Your task to perform on an android device: Open the map Image 0: 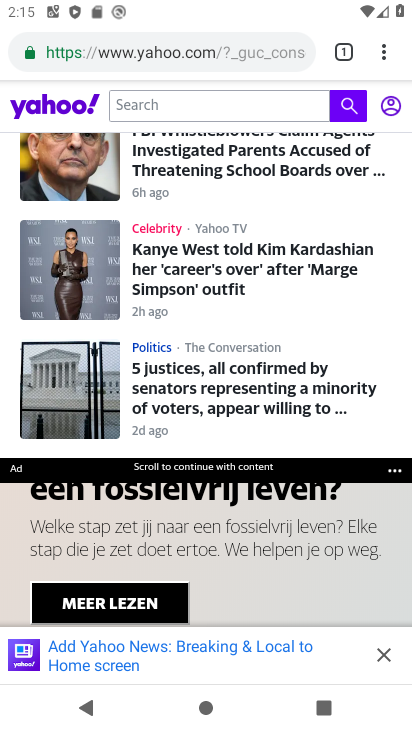
Step 0: press home button
Your task to perform on an android device: Open the map Image 1: 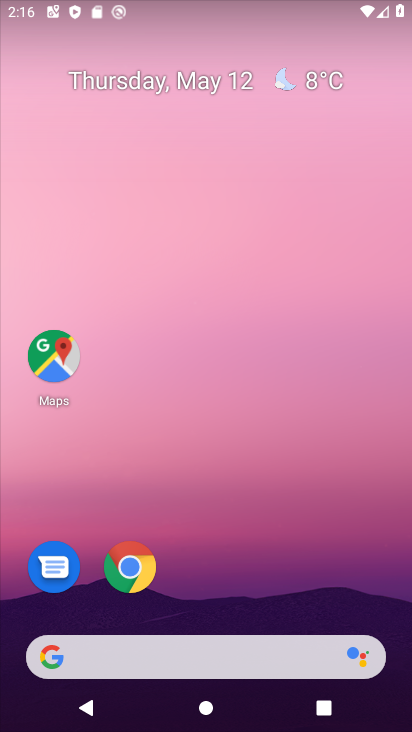
Step 1: click (53, 351)
Your task to perform on an android device: Open the map Image 2: 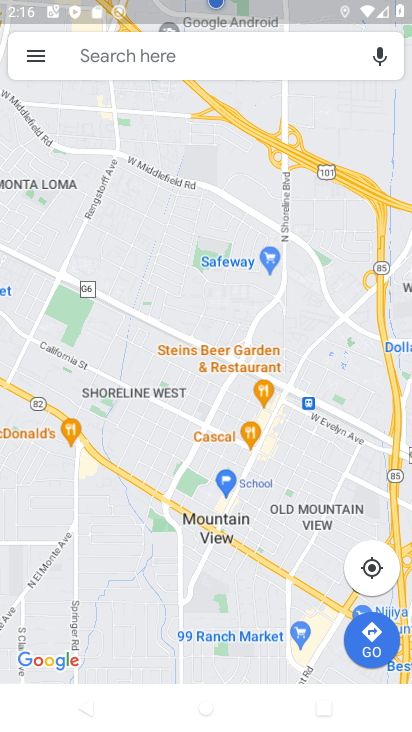
Step 2: task complete